Your task to perform on an android device: turn off location history Image 0: 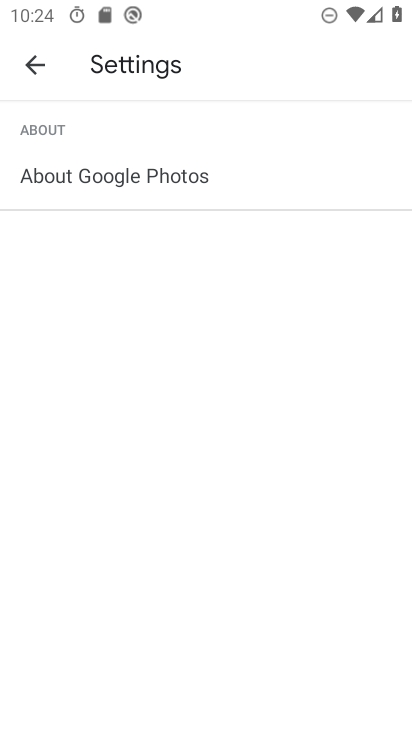
Step 0: press home button
Your task to perform on an android device: turn off location history Image 1: 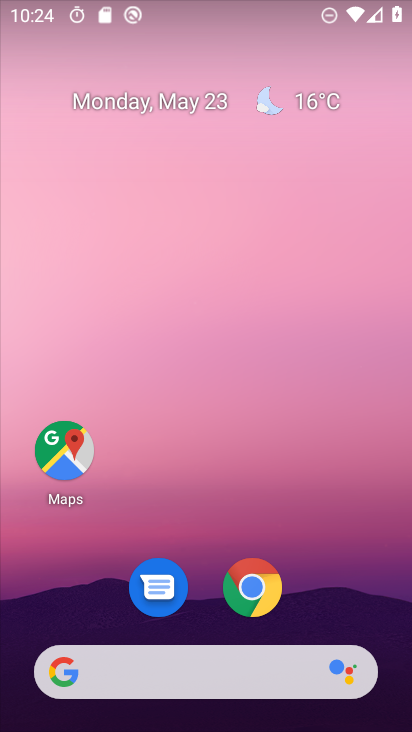
Step 1: drag from (68, 587) to (246, 111)
Your task to perform on an android device: turn off location history Image 2: 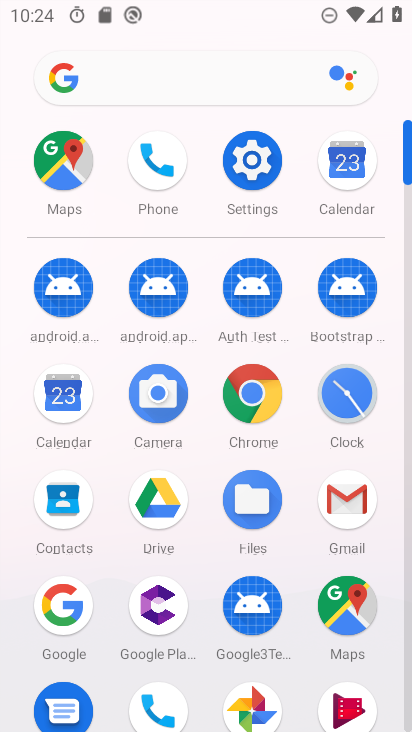
Step 2: click (265, 151)
Your task to perform on an android device: turn off location history Image 3: 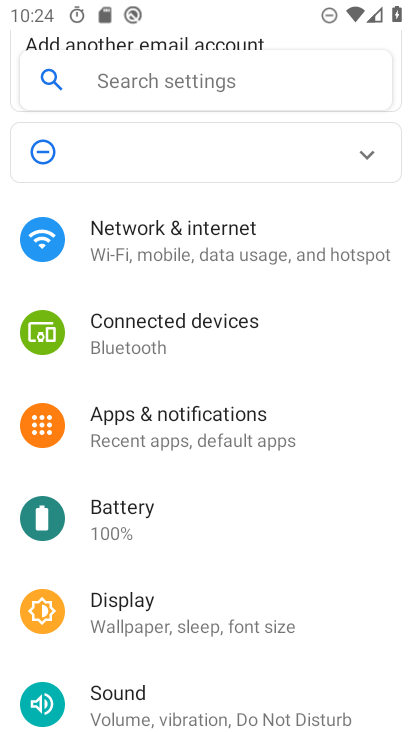
Step 3: drag from (171, 619) to (245, 182)
Your task to perform on an android device: turn off location history Image 4: 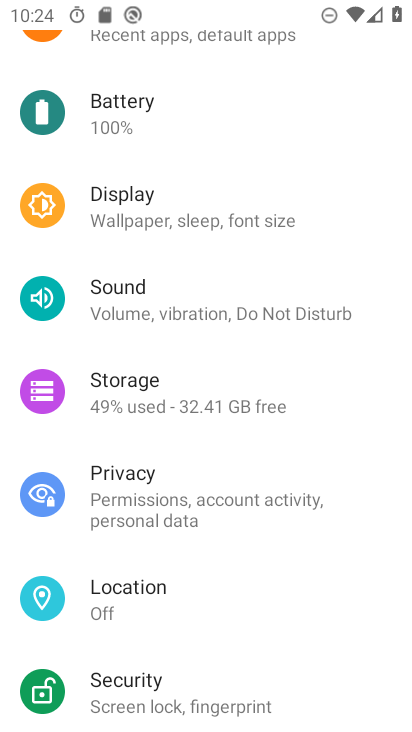
Step 4: click (146, 600)
Your task to perform on an android device: turn off location history Image 5: 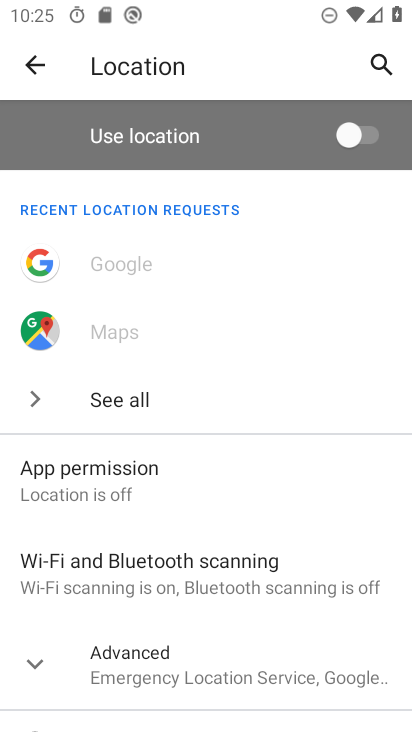
Step 5: click (202, 673)
Your task to perform on an android device: turn off location history Image 6: 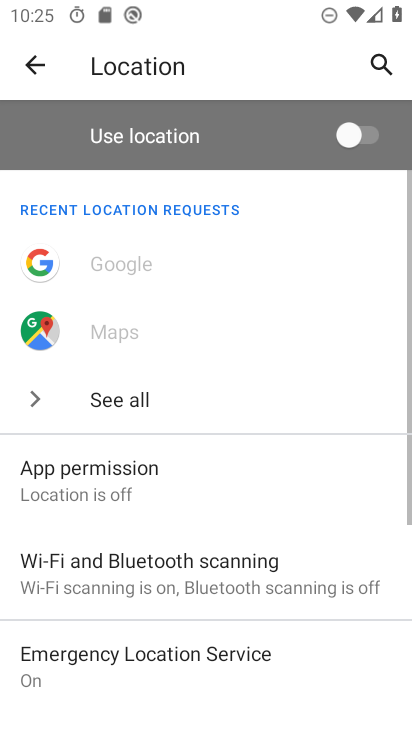
Step 6: drag from (205, 686) to (271, 203)
Your task to perform on an android device: turn off location history Image 7: 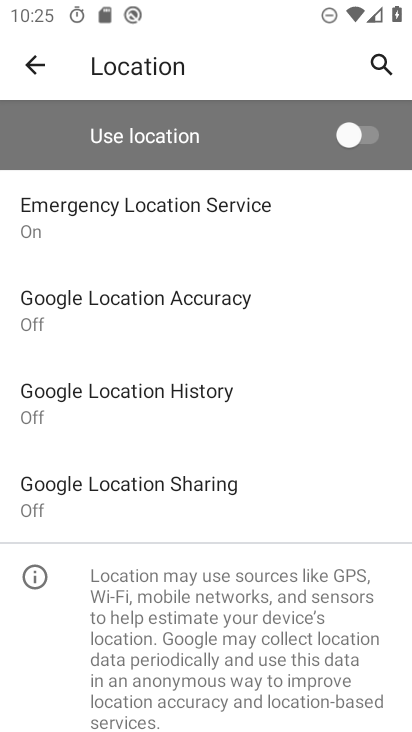
Step 7: click (181, 409)
Your task to perform on an android device: turn off location history Image 8: 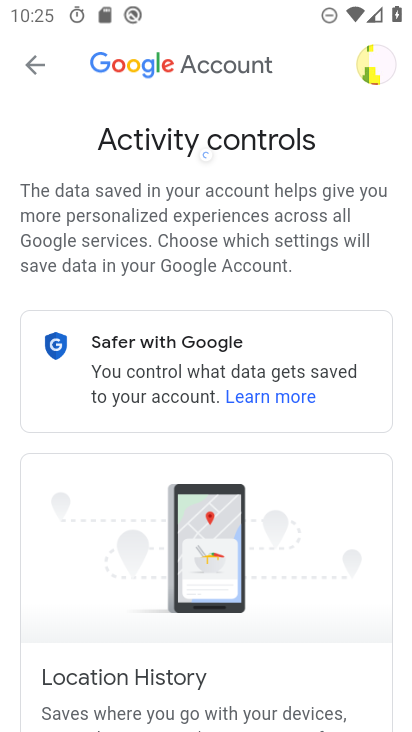
Step 8: drag from (170, 626) to (246, 62)
Your task to perform on an android device: turn off location history Image 9: 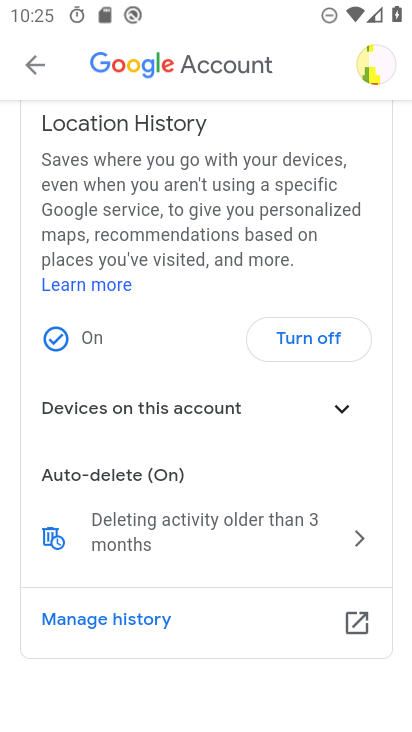
Step 9: drag from (211, 497) to (205, 190)
Your task to perform on an android device: turn off location history Image 10: 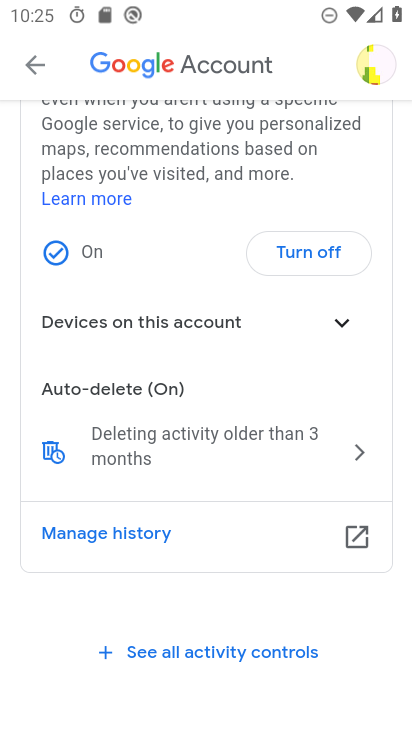
Step 10: click (268, 247)
Your task to perform on an android device: turn off location history Image 11: 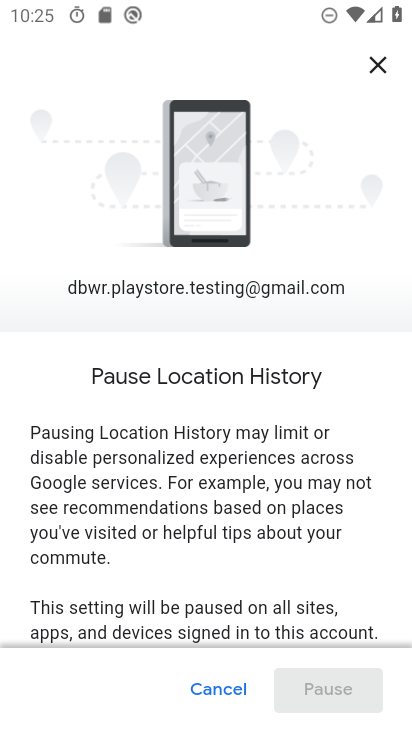
Step 11: drag from (193, 570) to (267, 91)
Your task to perform on an android device: turn off location history Image 12: 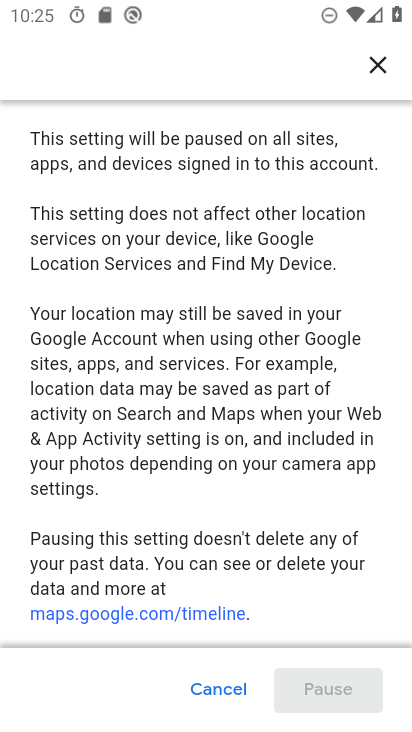
Step 12: drag from (260, 532) to (340, 105)
Your task to perform on an android device: turn off location history Image 13: 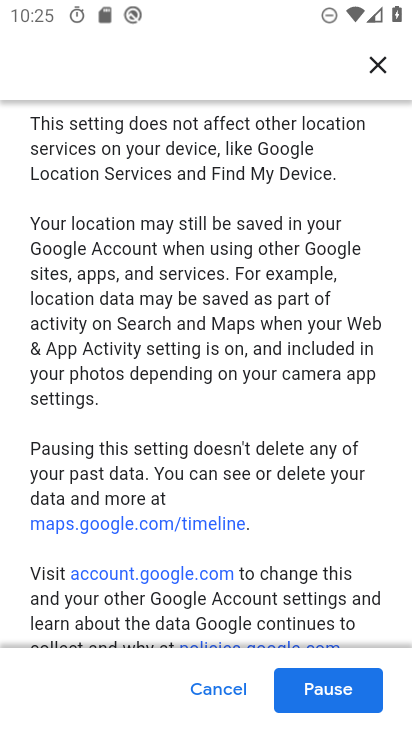
Step 13: drag from (243, 502) to (278, 196)
Your task to perform on an android device: turn off location history Image 14: 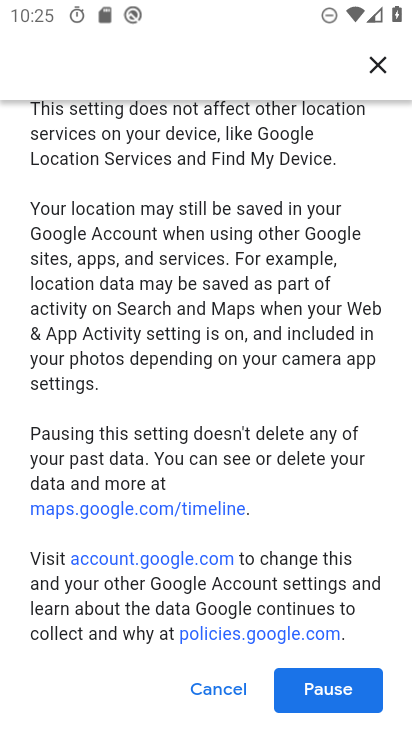
Step 14: click (325, 687)
Your task to perform on an android device: turn off location history Image 15: 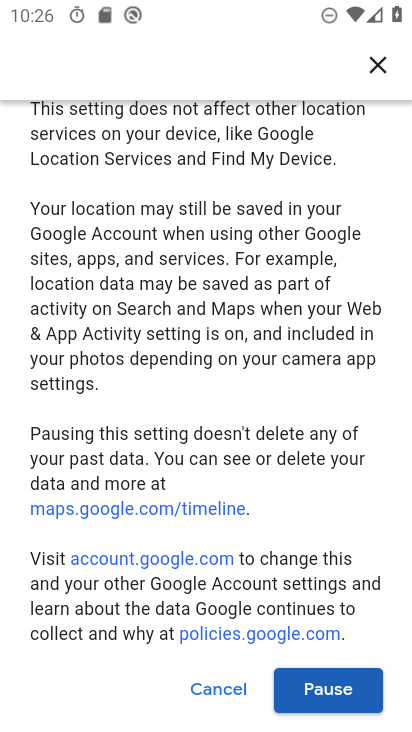
Step 15: click (333, 691)
Your task to perform on an android device: turn off location history Image 16: 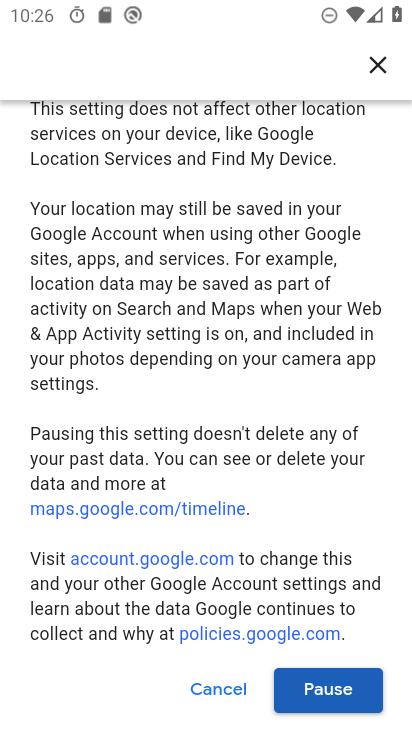
Step 16: drag from (203, 525) to (231, 84)
Your task to perform on an android device: turn off location history Image 17: 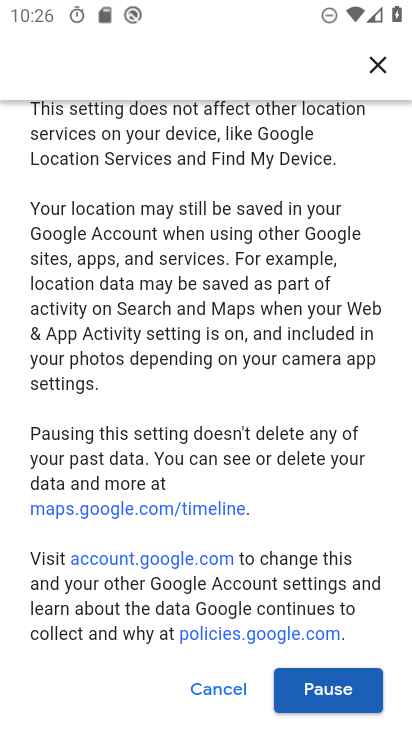
Step 17: click (321, 685)
Your task to perform on an android device: turn off location history Image 18: 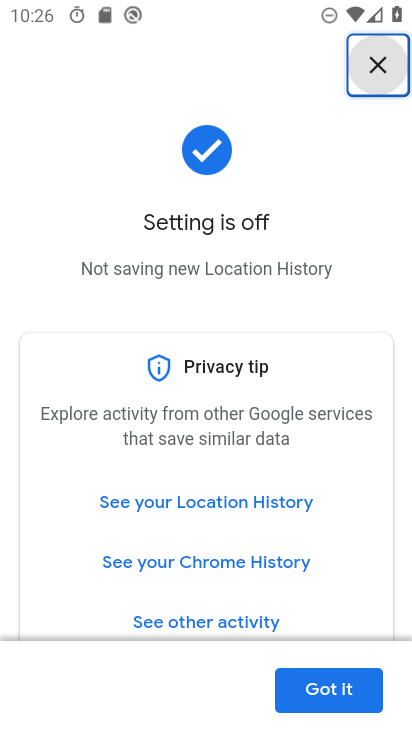
Step 18: task complete